Your task to perform on an android device: Open network settings Image 0: 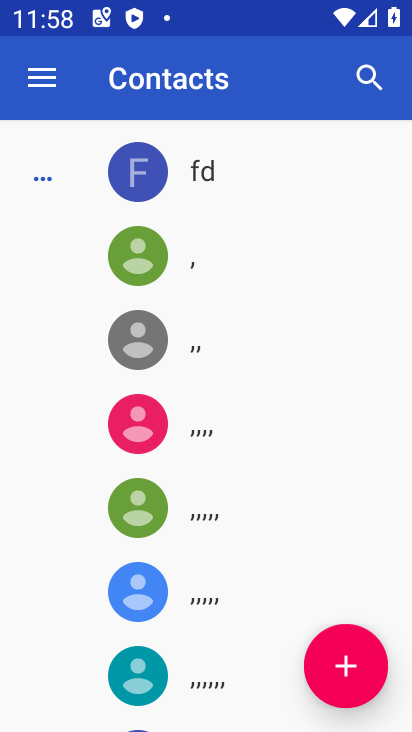
Step 0: press home button
Your task to perform on an android device: Open network settings Image 1: 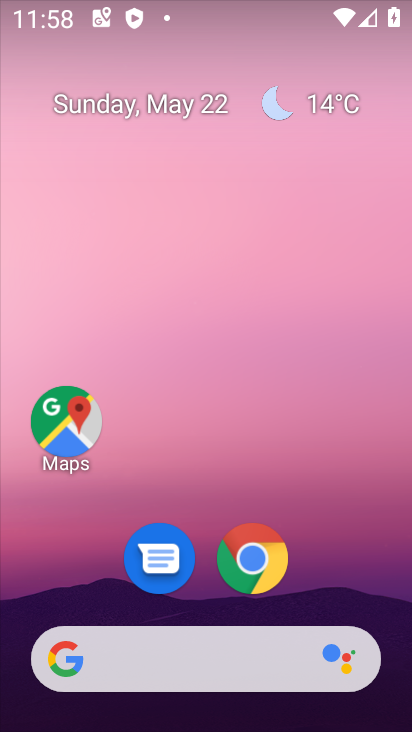
Step 1: drag from (348, 612) to (409, 5)
Your task to perform on an android device: Open network settings Image 2: 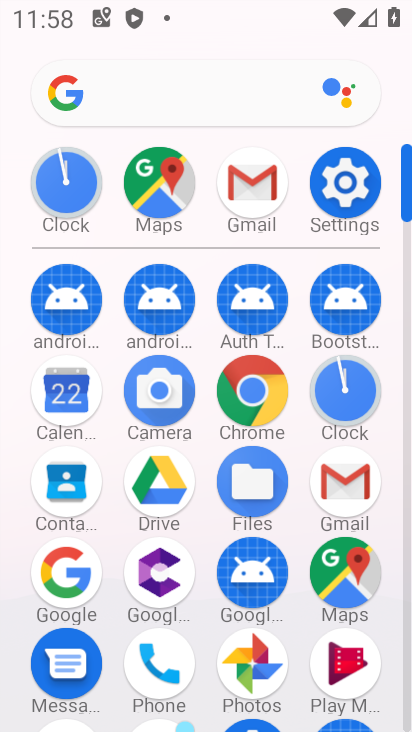
Step 2: click (349, 191)
Your task to perform on an android device: Open network settings Image 3: 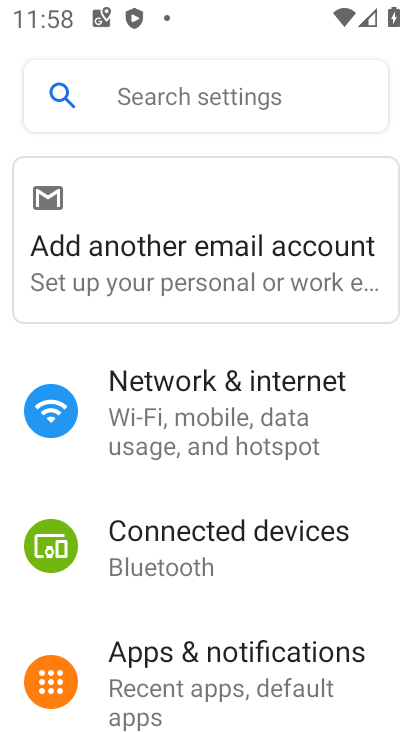
Step 3: click (194, 422)
Your task to perform on an android device: Open network settings Image 4: 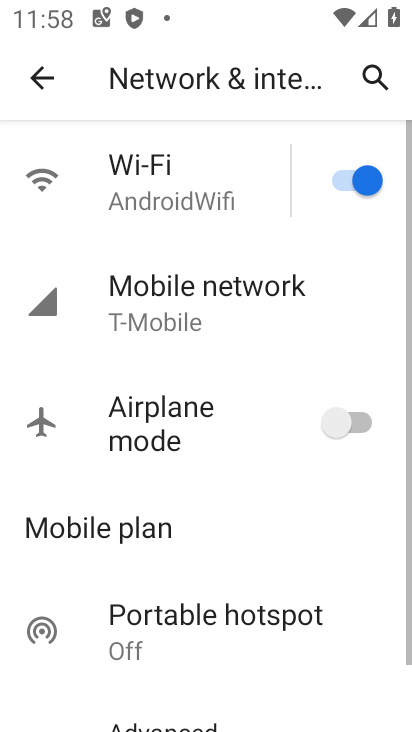
Step 4: click (174, 321)
Your task to perform on an android device: Open network settings Image 5: 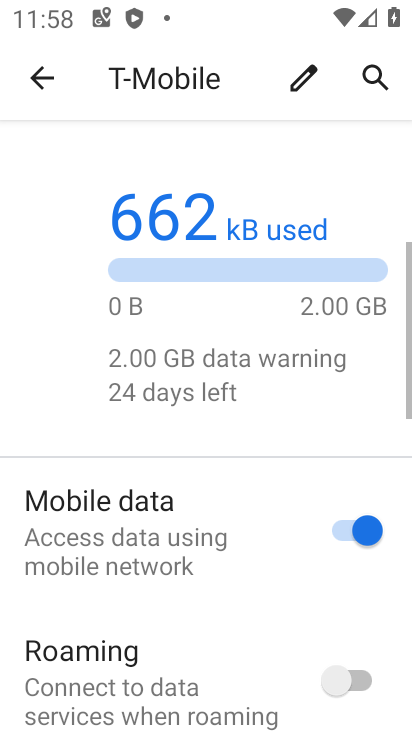
Step 5: drag from (207, 605) to (236, 82)
Your task to perform on an android device: Open network settings Image 6: 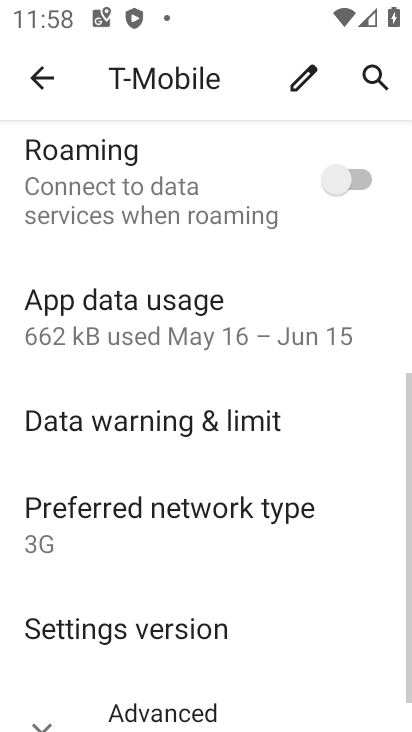
Step 6: drag from (177, 523) to (218, 142)
Your task to perform on an android device: Open network settings Image 7: 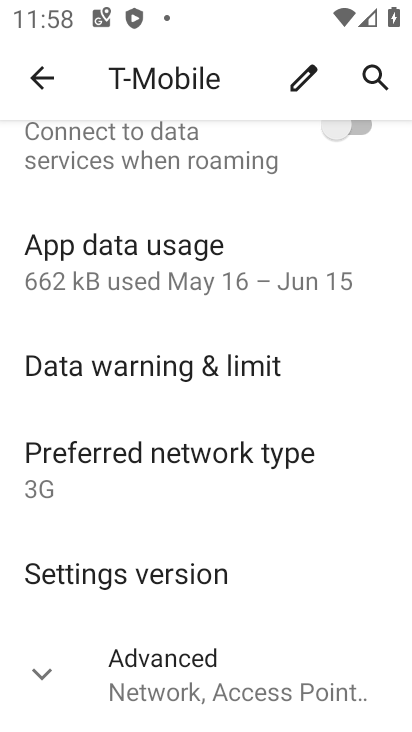
Step 7: click (46, 682)
Your task to perform on an android device: Open network settings Image 8: 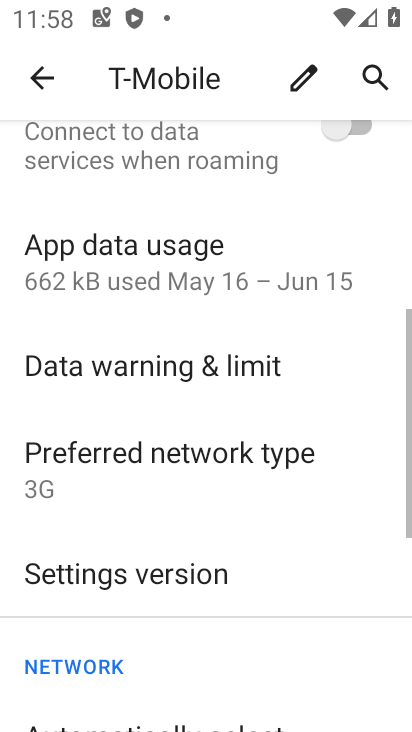
Step 8: task complete